Your task to perform on an android device: turn off notifications in google photos Image 0: 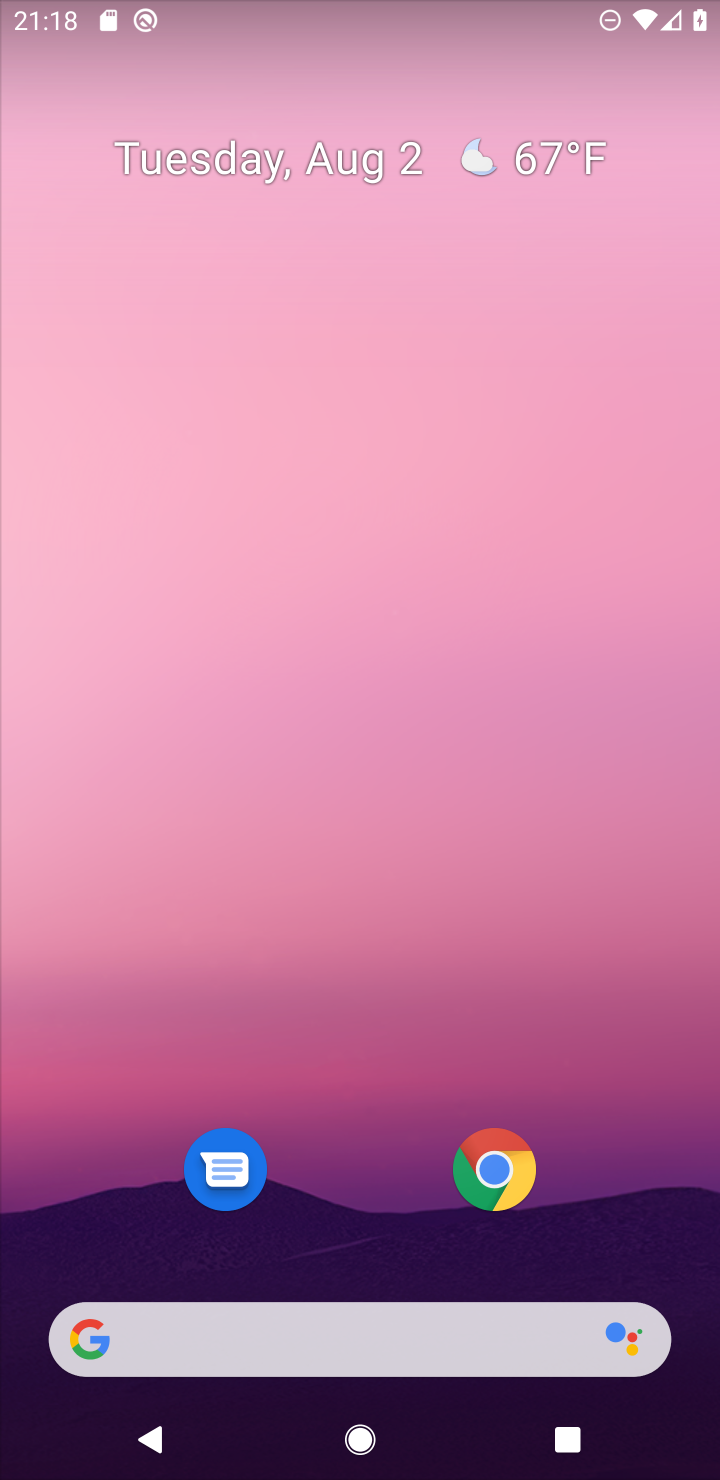
Step 0: drag from (340, 734) to (261, 40)
Your task to perform on an android device: turn off notifications in google photos Image 1: 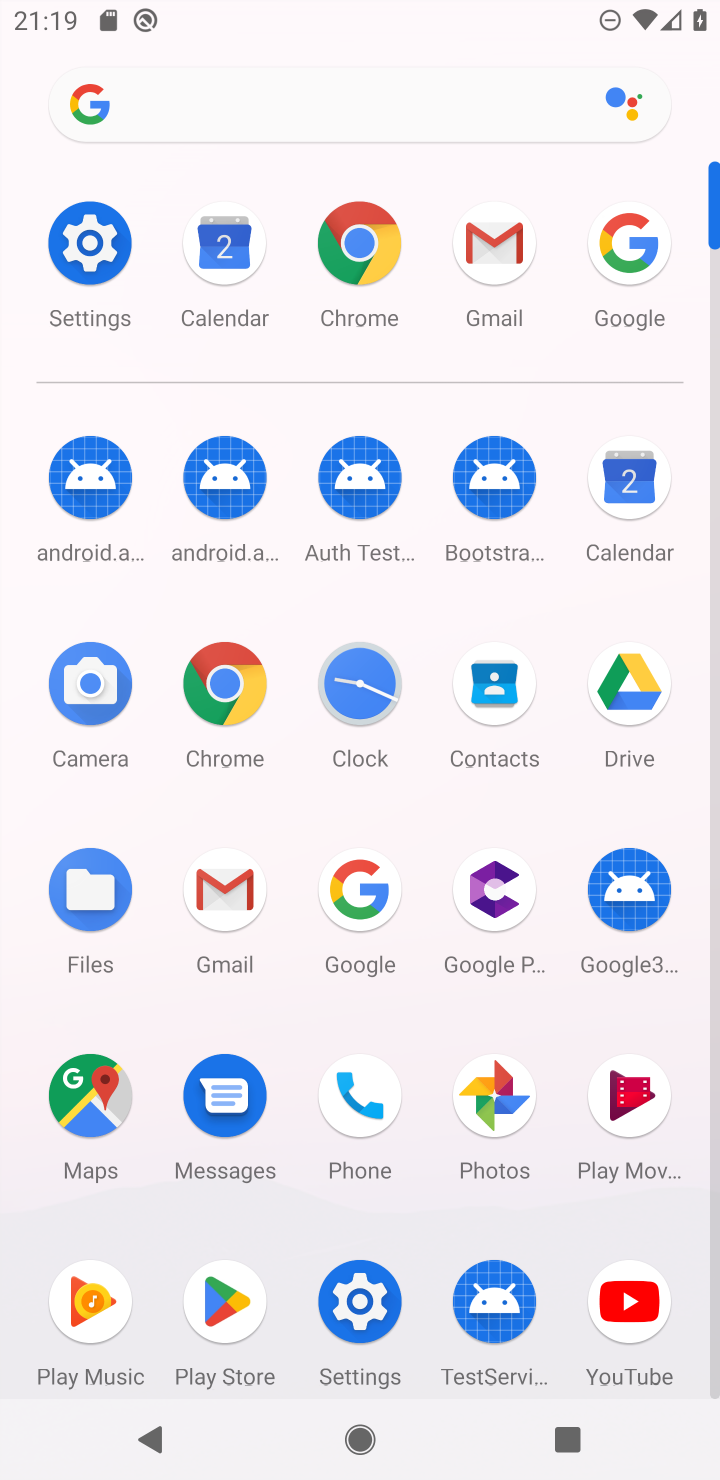
Step 1: click (490, 1110)
Your task to perform on an android device: turn off notifications in google photos Image 2: 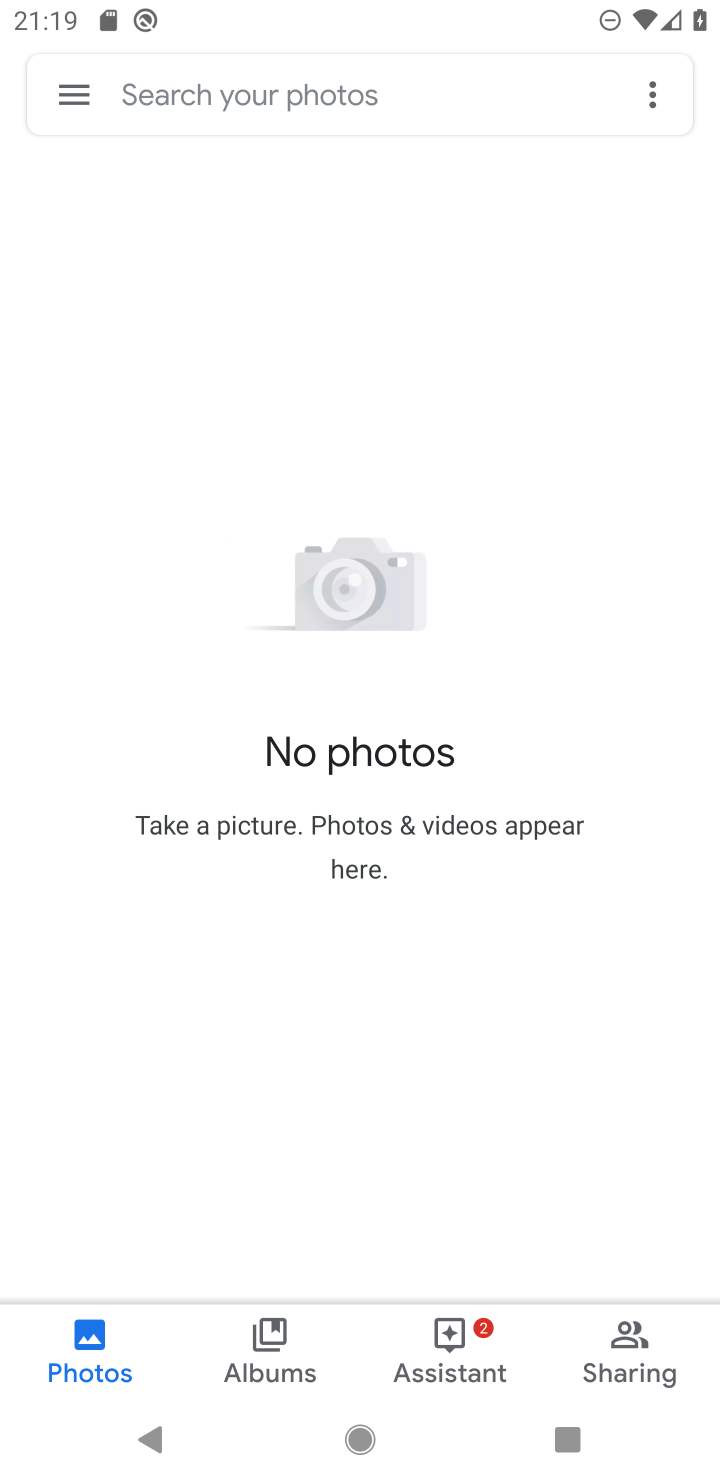
Step 2: click (66, 83)
Your task to perform on an android device: turn off notifications in google photos Image 3: 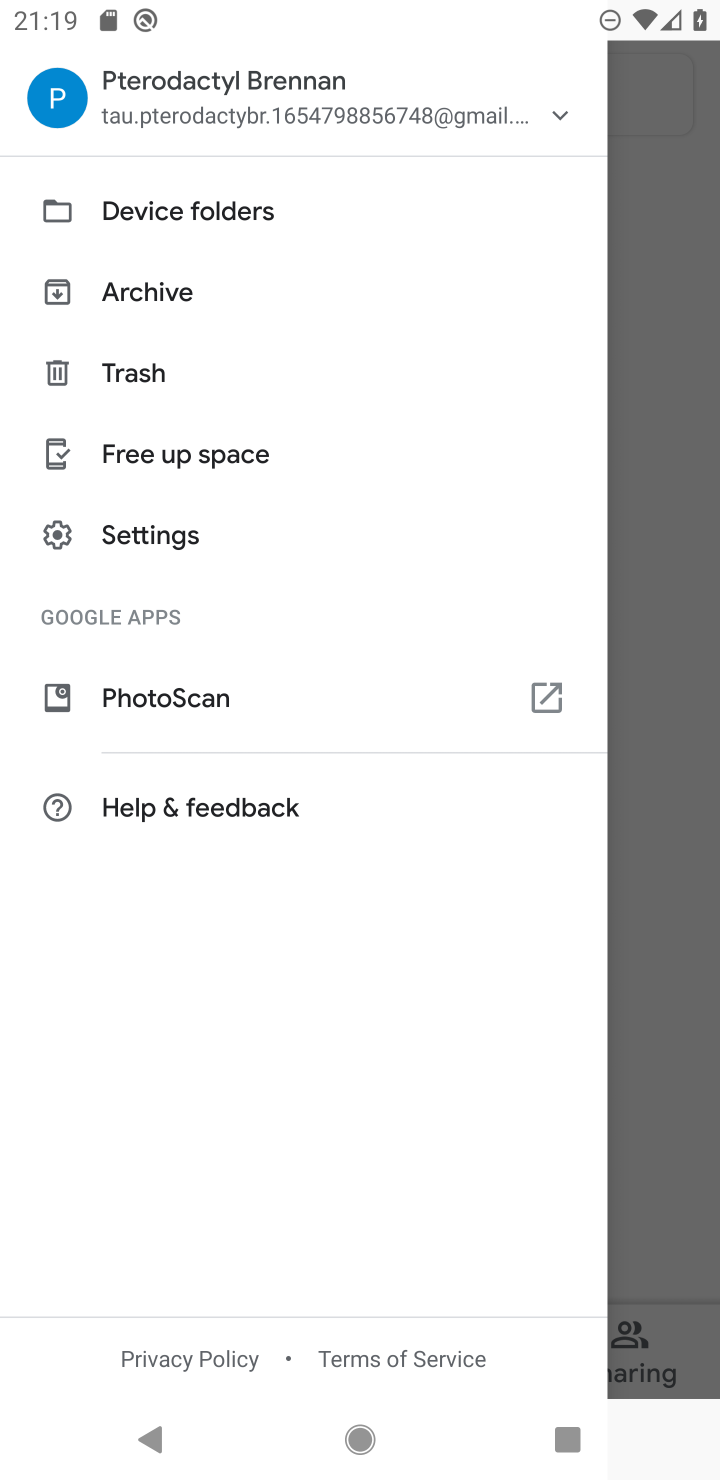
Step 3: click (161, 532)
Your task to perform on an android device: turn off notifications in google photos Image 4: 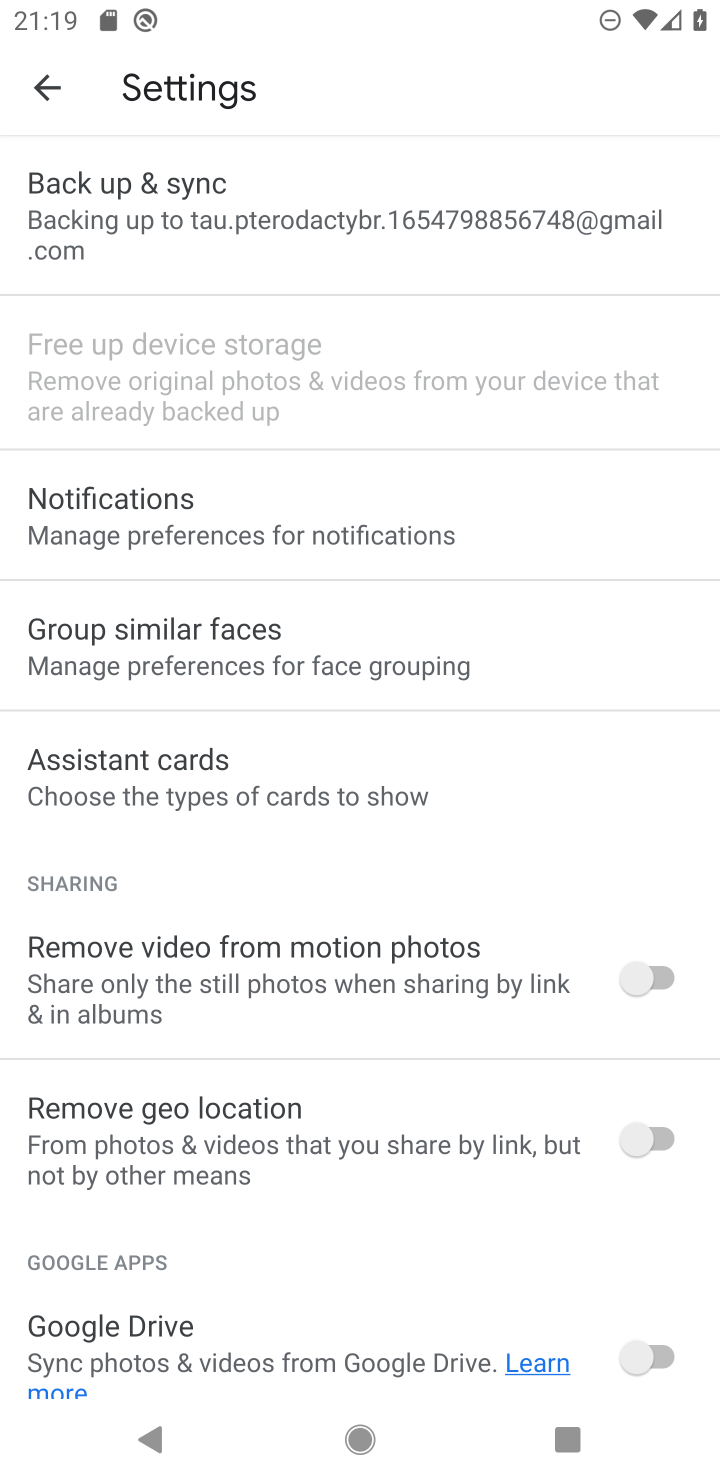
Step 4: click (95, 521)
Your task to perform on an android device: turn off notifications in google photos Image 5: 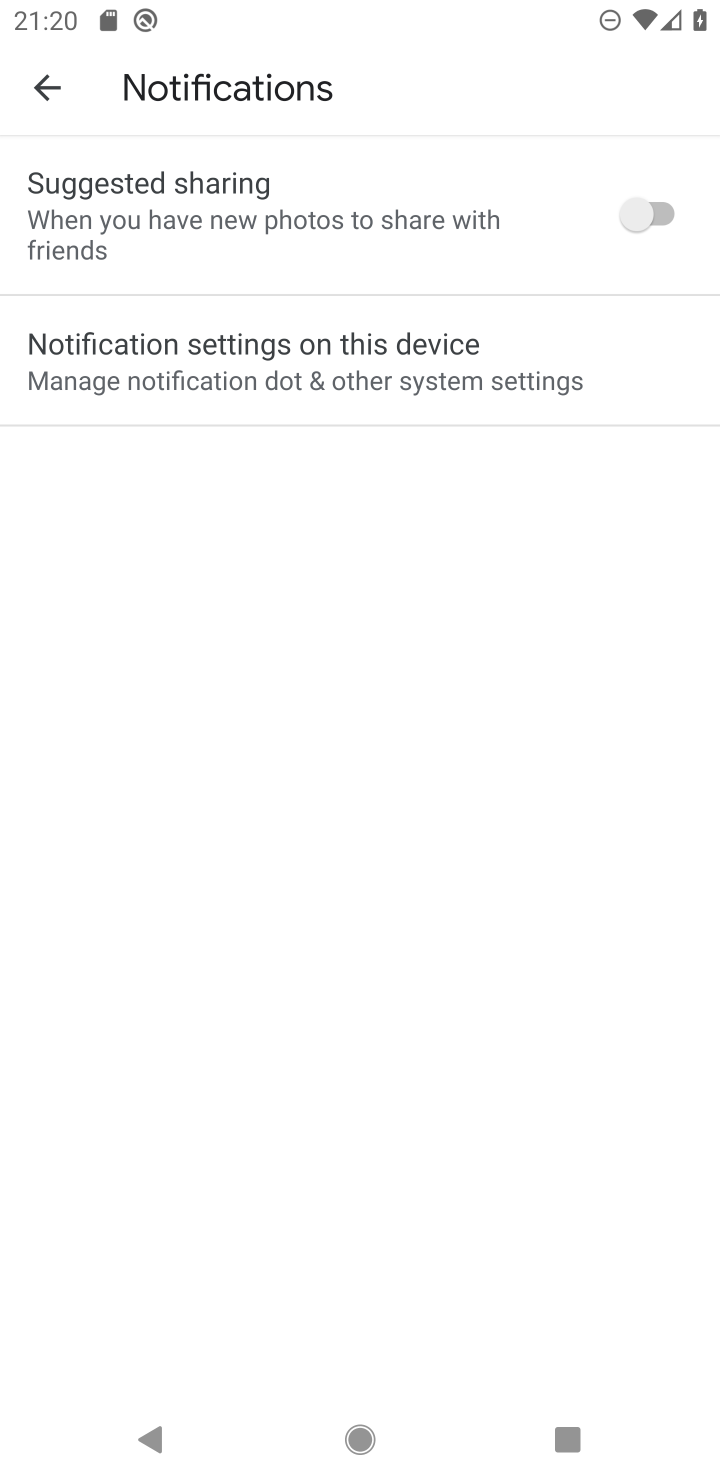
Step 5: click (264, 357)
Your task to perform on an android device: turn off notifications in google photos Image 6: 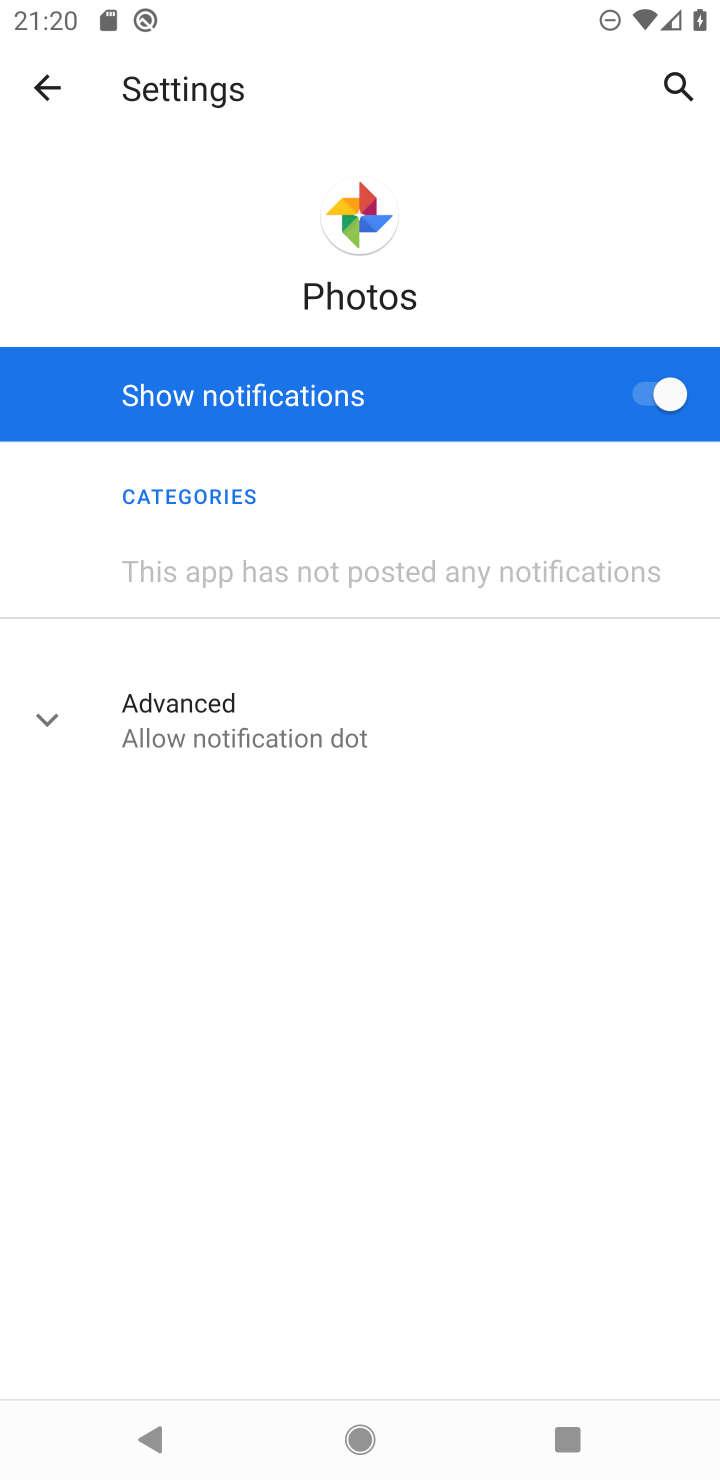
Step 6: click (639, 401)
Your task to perform on an android device: turn off notifications in google photos Image 7: 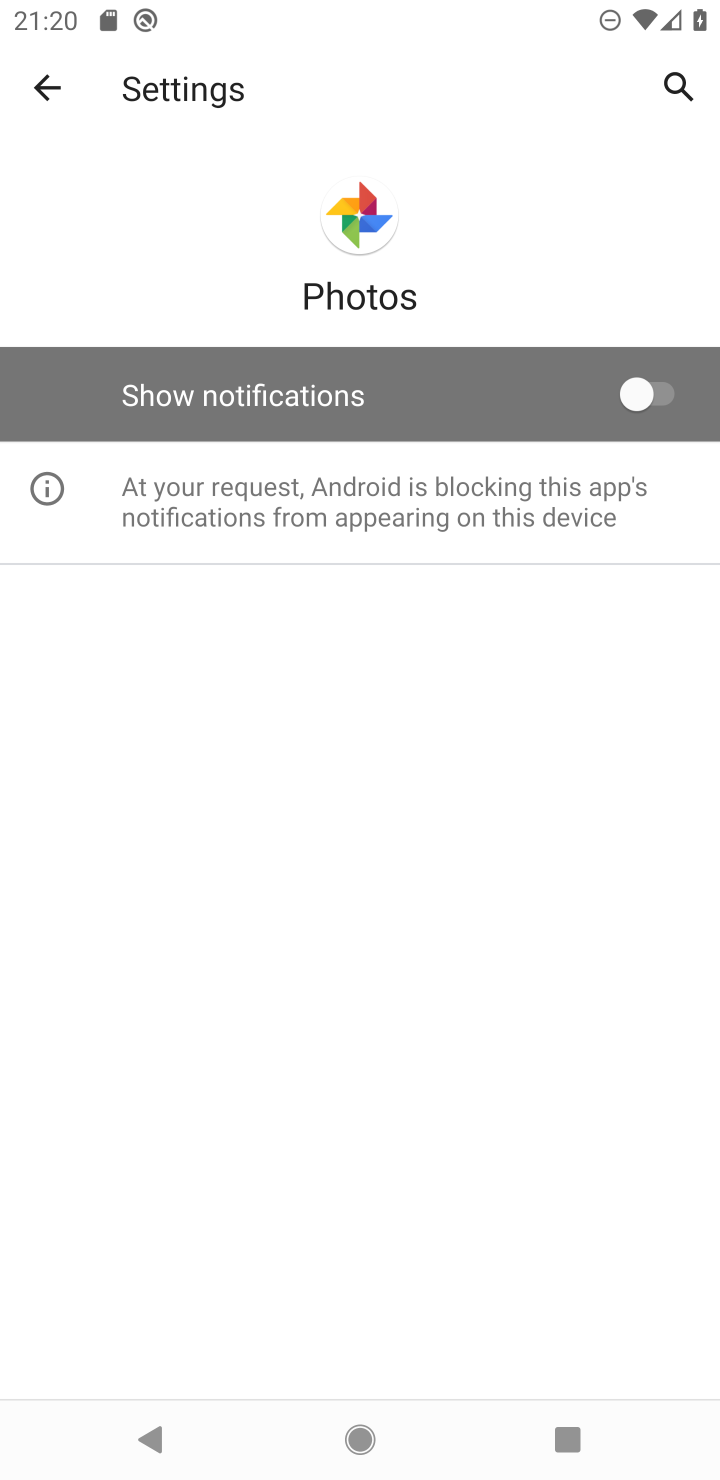
Step 7: task complete